Your task to perform on an android device: see tabs open on other devices in the chrome app Image 0: 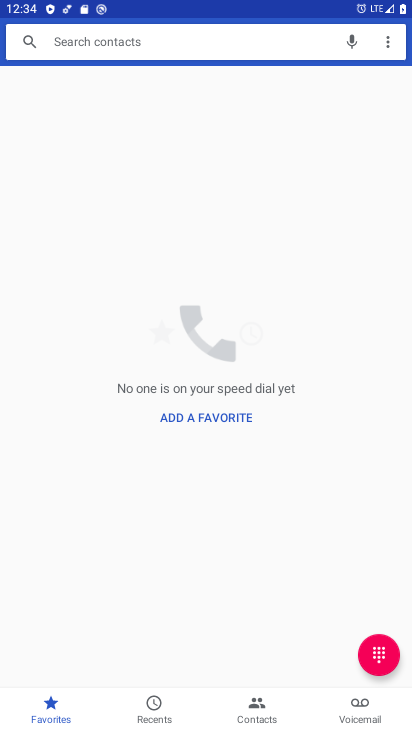
Step 0: press home button
Your task to perform on an android device: see tabs open on other devices in the chrome app Image 1: 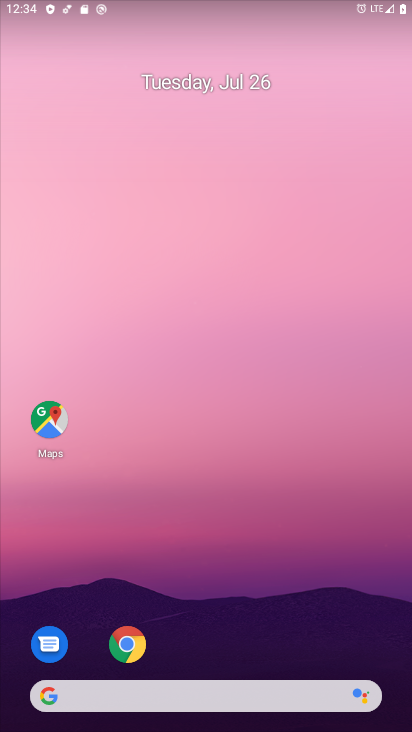
Step 1: click (124, 648)
Your task to perform on an android device: see tabs open on other devices in the chrome app Image 2: 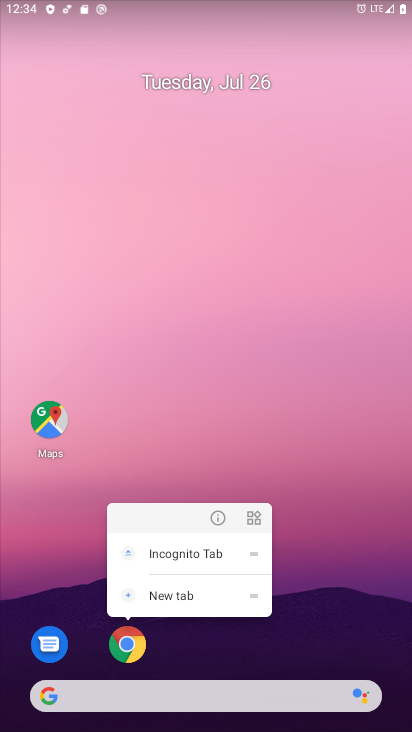
Step 2: click (124, 648)
Your task to perform on an android device: see tabs open on other devices in the chrome app Image 3: 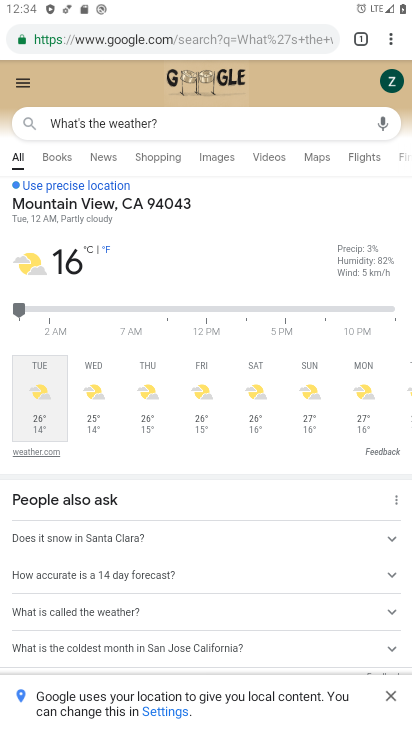
Step 3: click (390, 32)
Your task to perform on an android device: see tabs open on other devices in the chrome app Image 4: 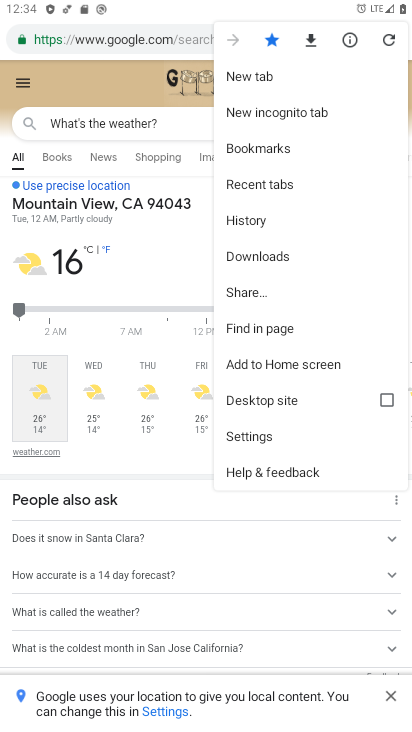
Step 4: click (268, 183)
Your task to perform on an android device: see tabs open on other devices in the chrome app Image 5: 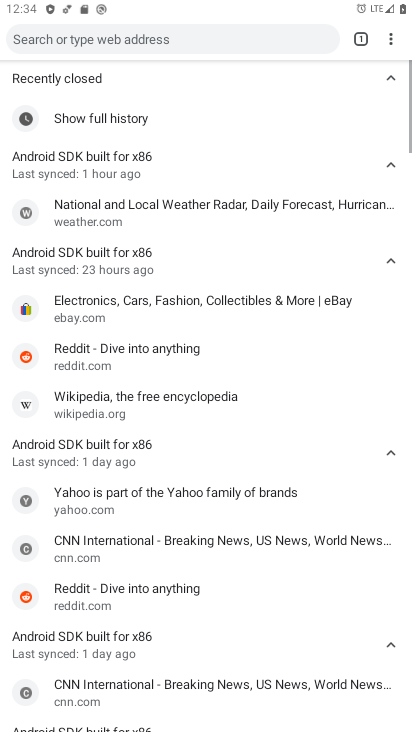
Step 5: task complete